Your task to perform on an android device: Open privacy settings Image 0: 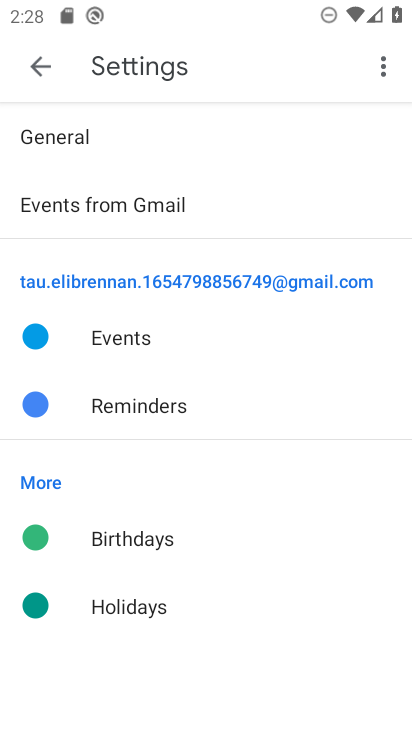
Step 0: press back button
Your task to perform on an android device: Open privacy settings Image 1: 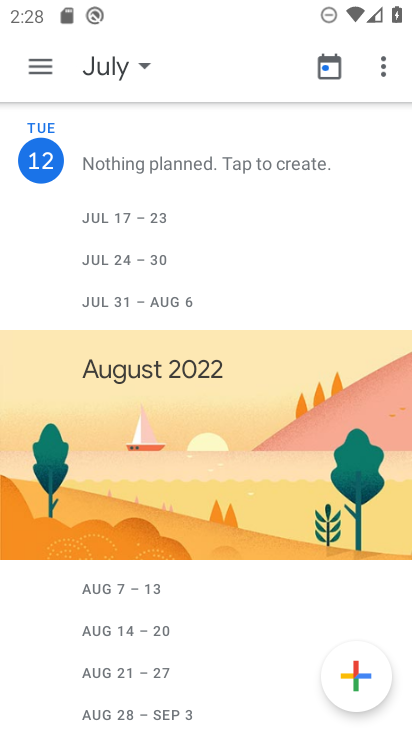
Step 1: press home button
Your task to perform on an android device: Open privacy settings Image 2: 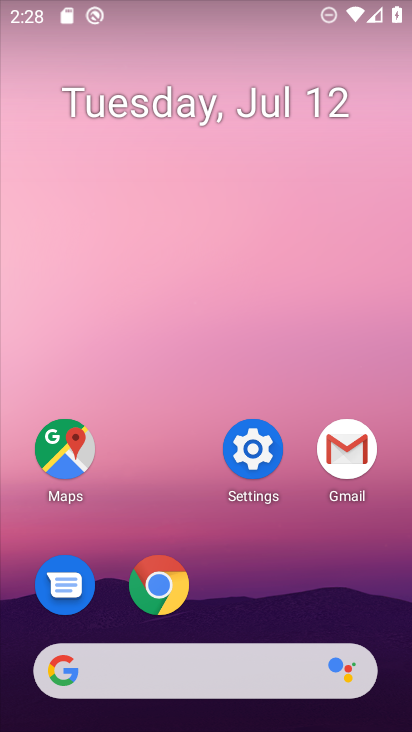
Step 2: click (244, 451)
Your task to perform on an android device: Open privacy settings Image 3: 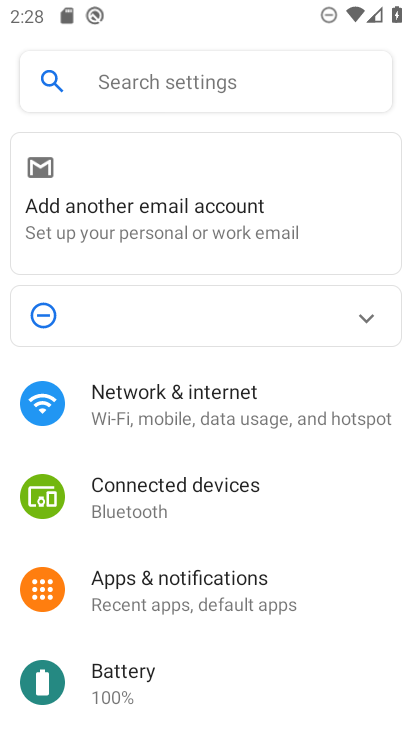
Step 3: drag from (242, 666) to (268, 205)
Your task to perform on an android device: Open privacy settings Image 4: 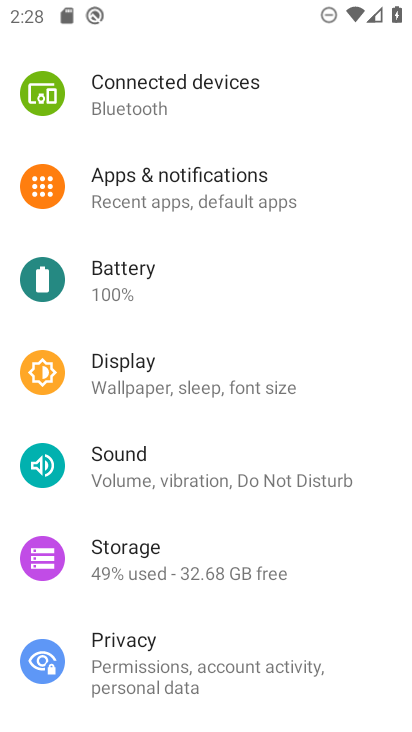
Step 4: click (128, 651)
Your task to perform on an android device: Open privacy settings Image 5: 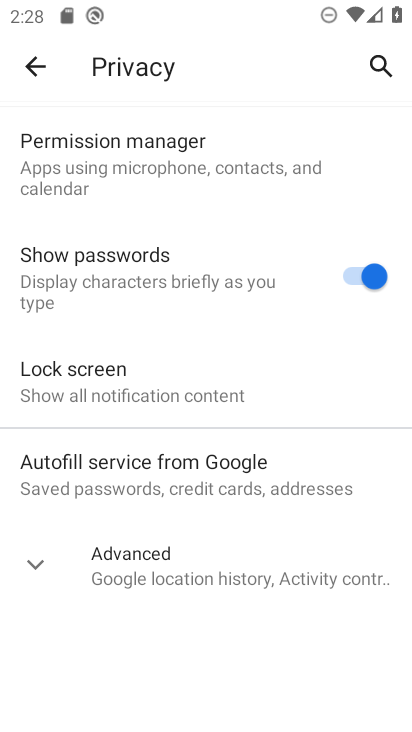
Step 5: click (40, 566)
Your task to perform on an android device: Open privacy settings Image 6: 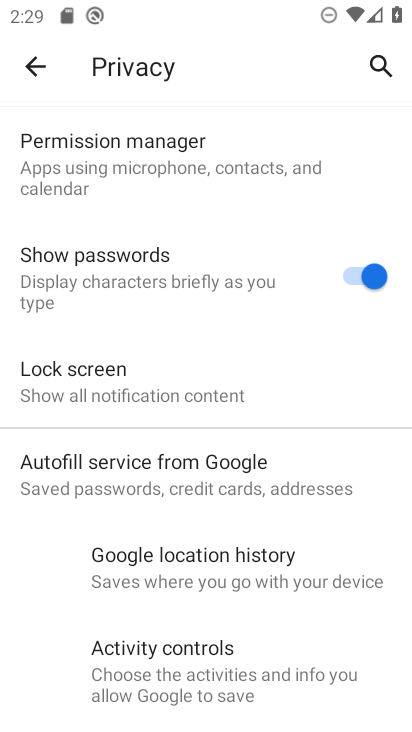
Step 6: task complete